Your task to perform on an android device: open a new tab in the chrome app Image 0: 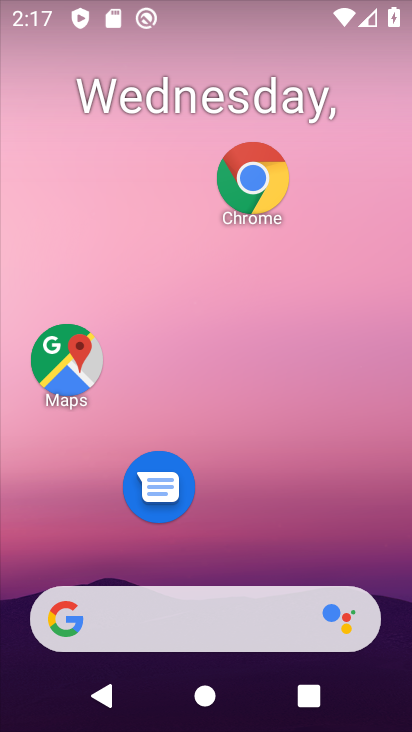
Step 0: click (254, 174)
Your task to perform on an android device: open a new tab in the chrome app Image 1: 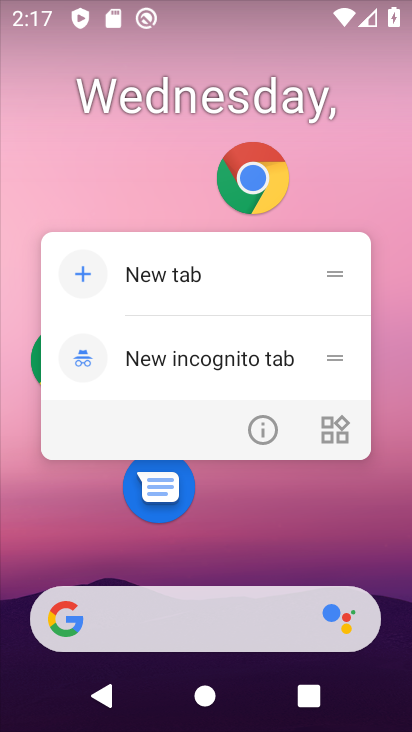
Step 1: click (253, 172)
Your task to perform on an android device: open a new tab in the chrome app Image 2: 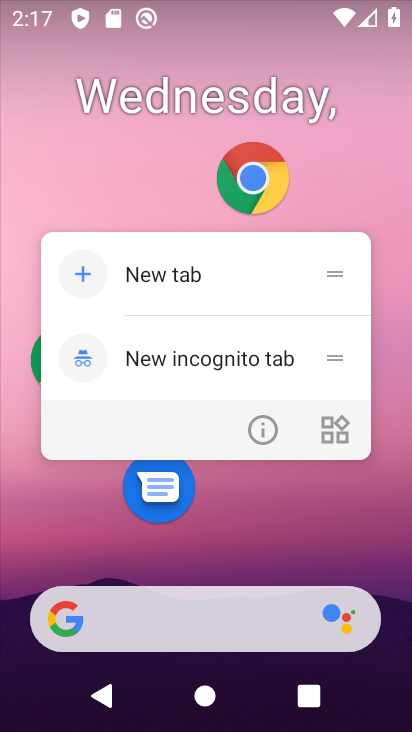
Step 2: click (250, 175)
Your task to perform on an android device: open a new tab in the chrome app Image 3: 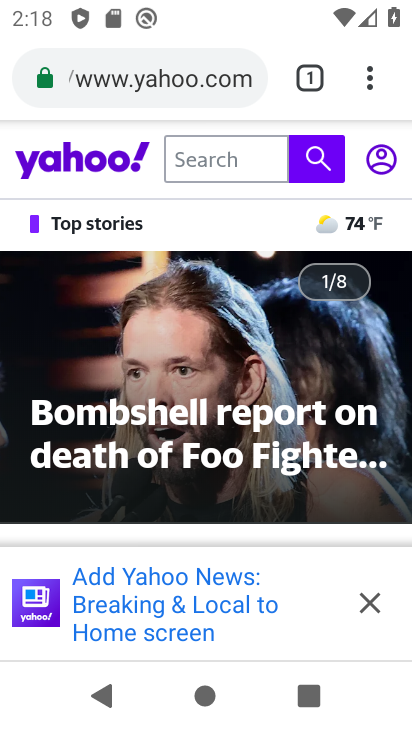
Step 3: click (365, 88)
Your task to perform on an android device: open a new tab in the chrome app Image 4: 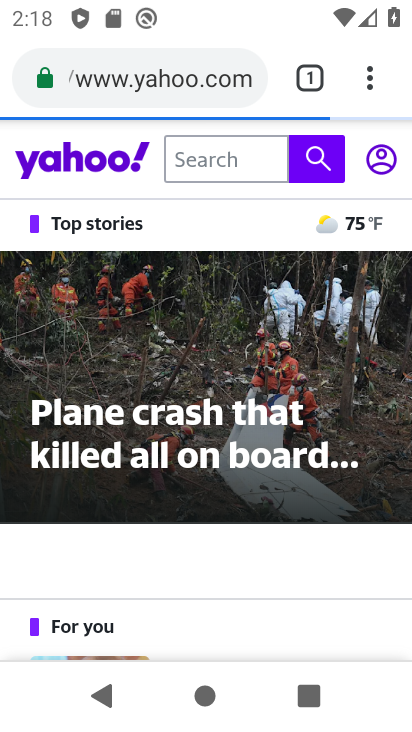
Step 4: click (363, 86)
Your task to perform on an android device: open a new tab in the chrome app Image 5: 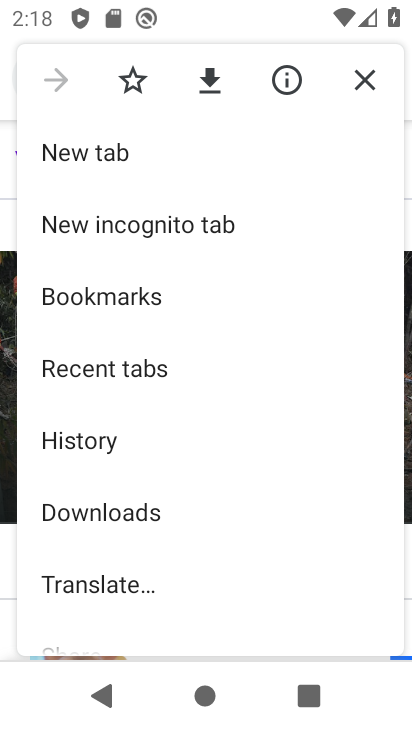
Step 5: click (157, 158)
Your task to perform on an android device: open a new tab in the chrome app Image 6: 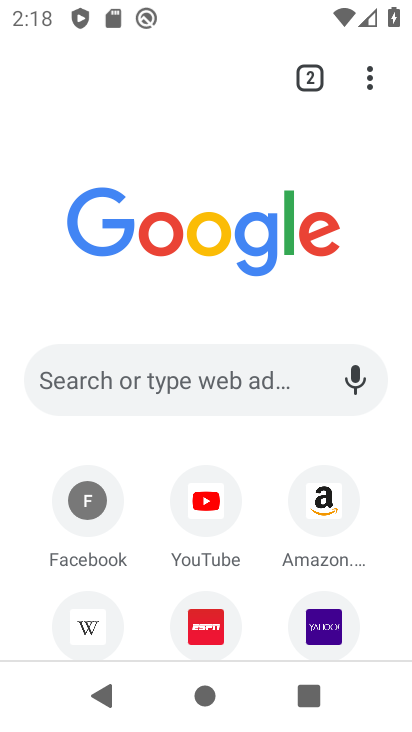
Step 6: task complete